Your task to perform on an android device: Search for flights from Mexico city to Boston Image 0: 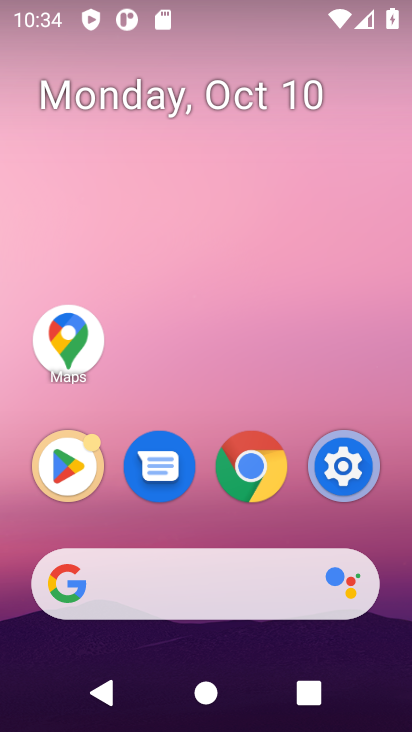
Step 0: click (67, 592)
Your task to perform on an android device: Search for flights from Mexico city to Boston Image 1: 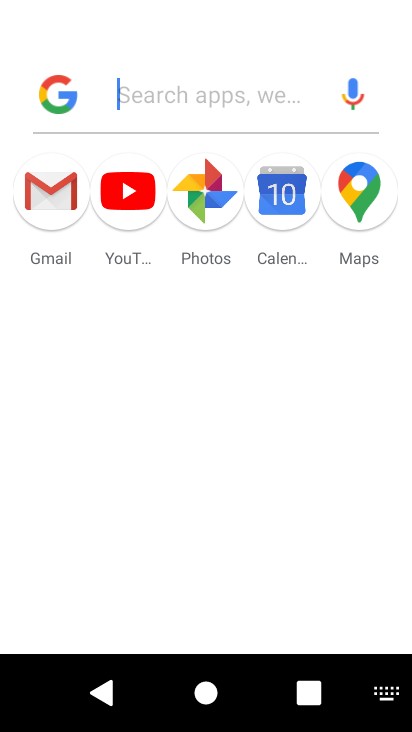
Step 1: type "flights from Mexico city to Boston"
Your task to perform on an android device: Search for flights from Mexico city to Boston Image 2: 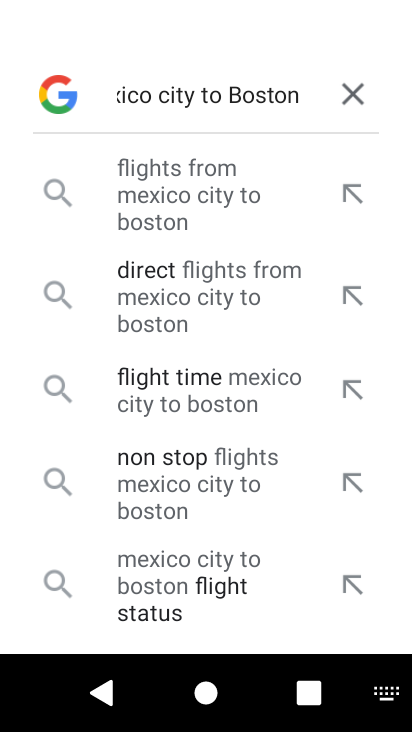
Step 2: press enter
Your task to perform on an android device: Search for flights from Mexico city to Boston Image 3: 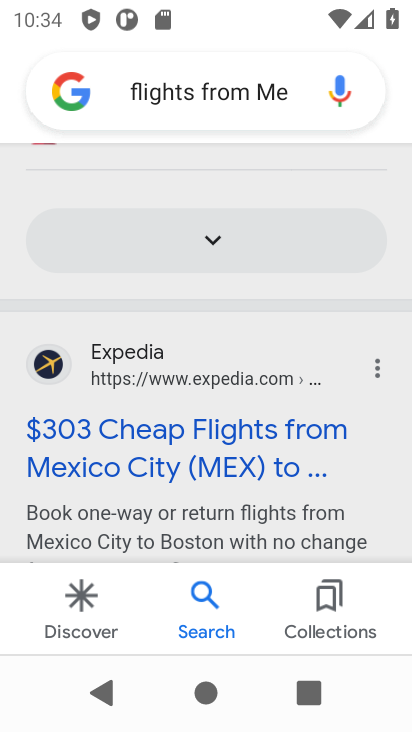
Step 3: task complete